Your task to perform on an android device: turn notification dots off Image 0: 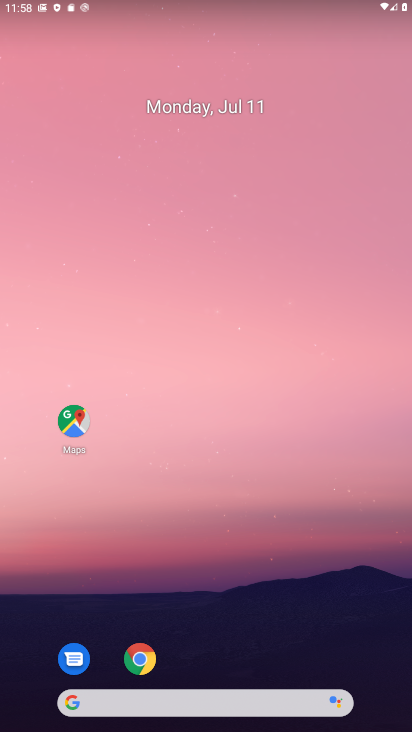
Step 0: drag from (263, 637) to (244, 189)
Your task to perform on an android device: turn notification dots off Image 1: 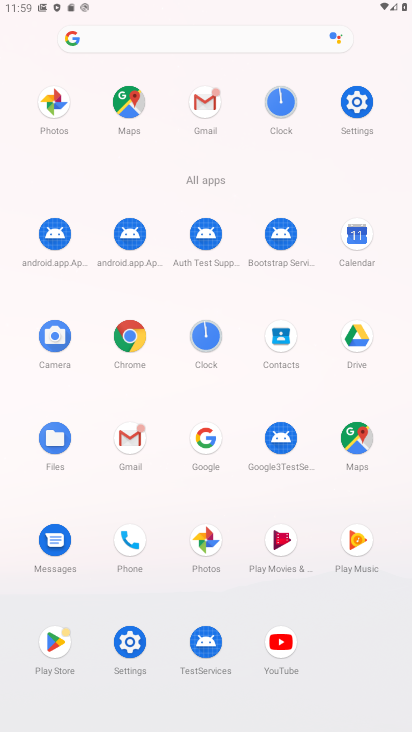
Step 1: click (126, 647)
Your task to perform on an android device: turn notification dots off Image 2: 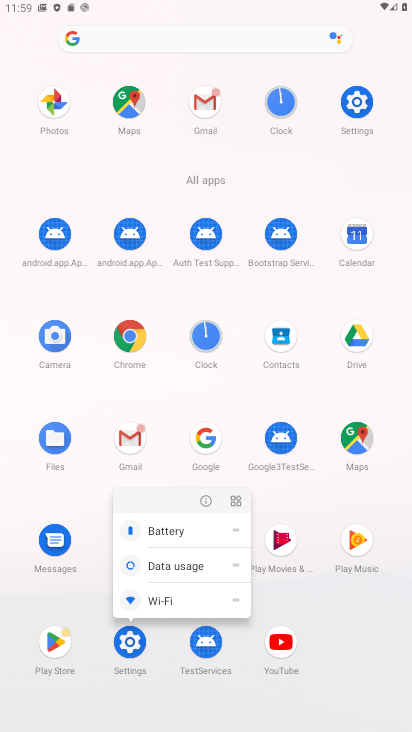
Step 2: click (140, 652)
Your task to perform on an android device: turn notification dots off Image 3: 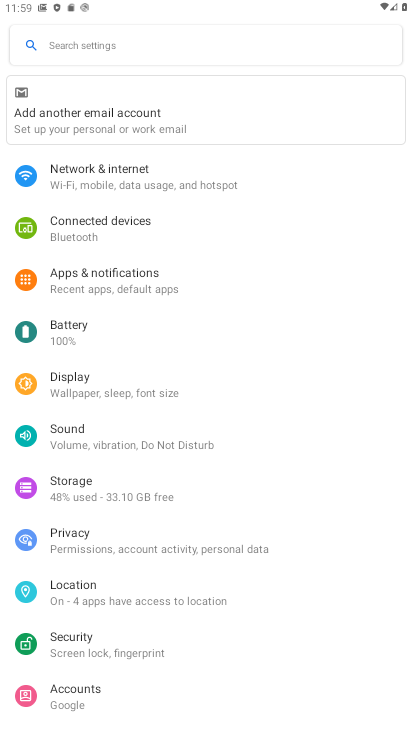
Step 3: click (129, 287)
Your task to perform on an android device: turn notification dots off Image 4: 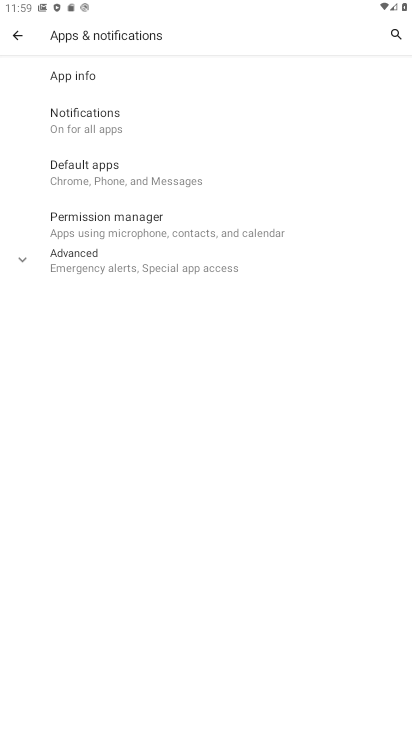
Step 4: click (110, 231)
Your task to perform on an android device: turn notification dots off Image 5: 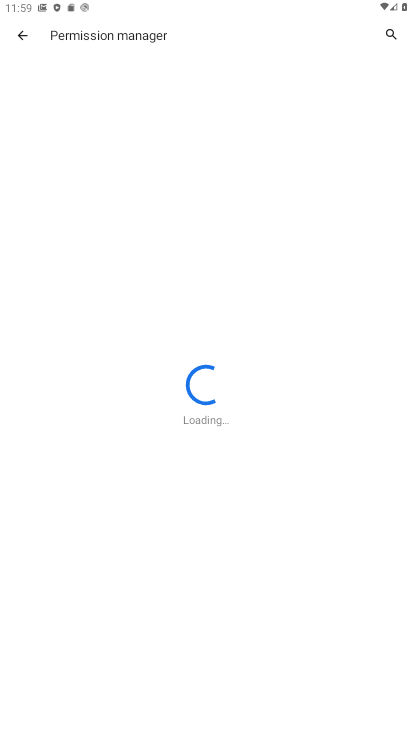
Step 5: click (23, 34)
Your task to perform on an android device: turn notification dots off Image 6: 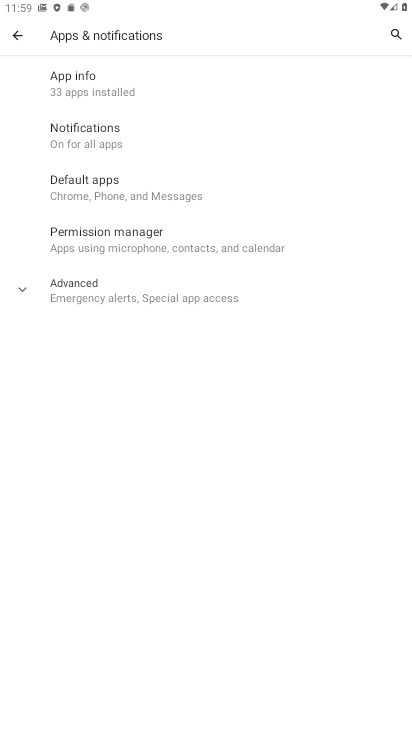
Step 6: click (86, 126)
Your task to perform on an android device: turn notification dots off Image 7: 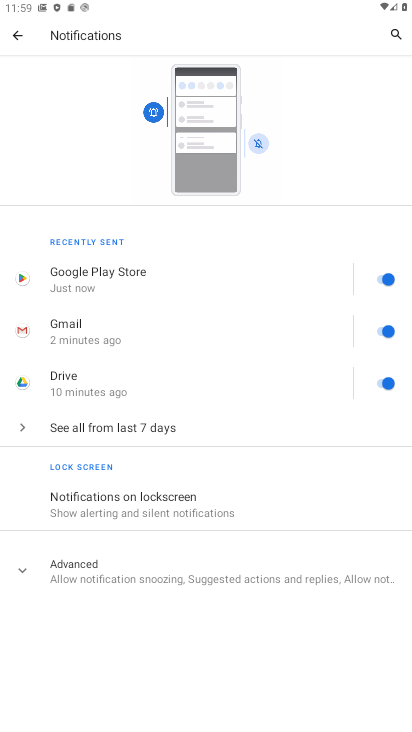
Step 7: click (121, 567)
Your task to perform on an android device: turn notification dots off Image 8: 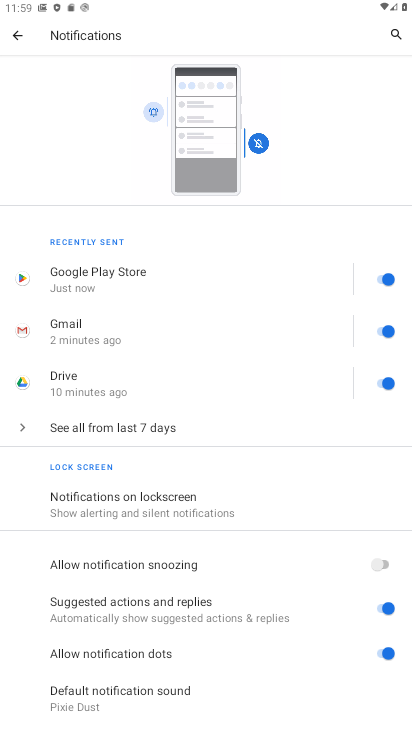
Step 8: click (385, 649)
Your task to perform on an android device: turn notification dots off Image 9: 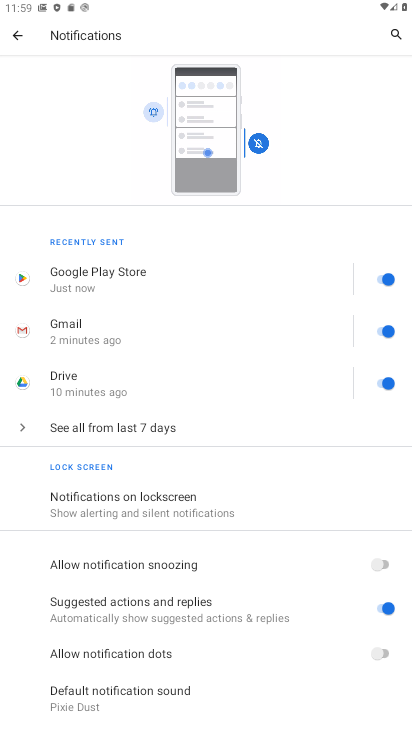
Step 9: task complete